Your task to perform on an android device: Go to ESPN.com Image 0: 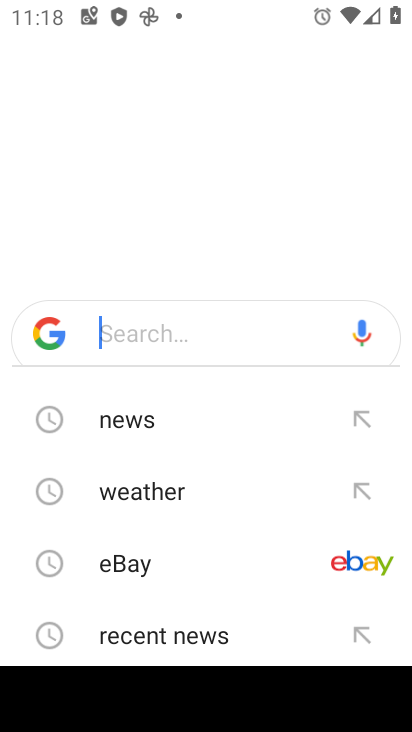
Step 0: press home button
Your task to perform on an android device: Go to ESPN.com Image 1: 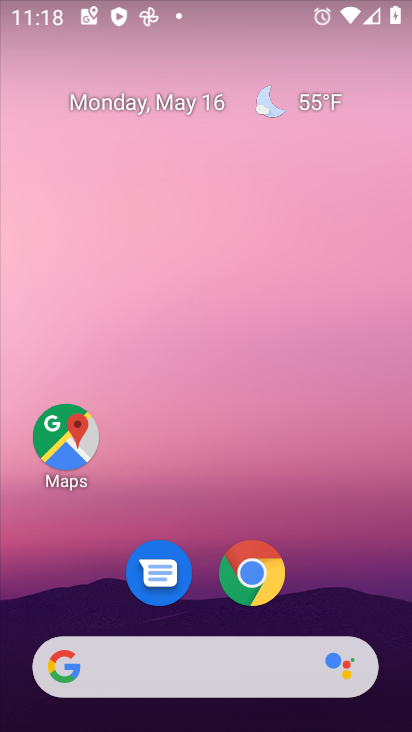
Step 1: click (239, 580)
Your task to perform on an android device: Go to ESPN.com Image 2: 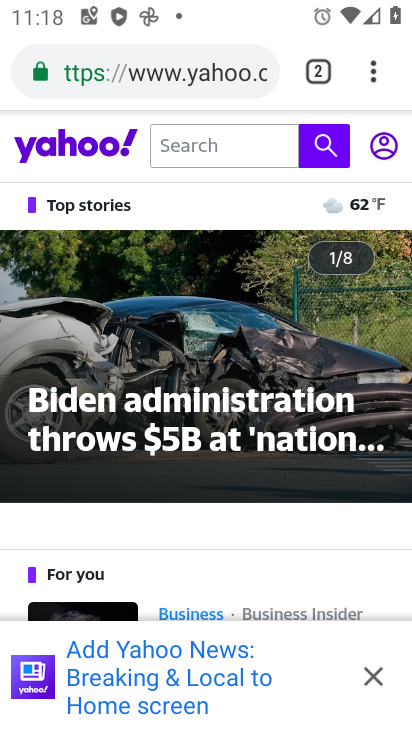
Step 2: click (329, 79)
Your task to perform on an android device: Go to ESPN.com Image 3: 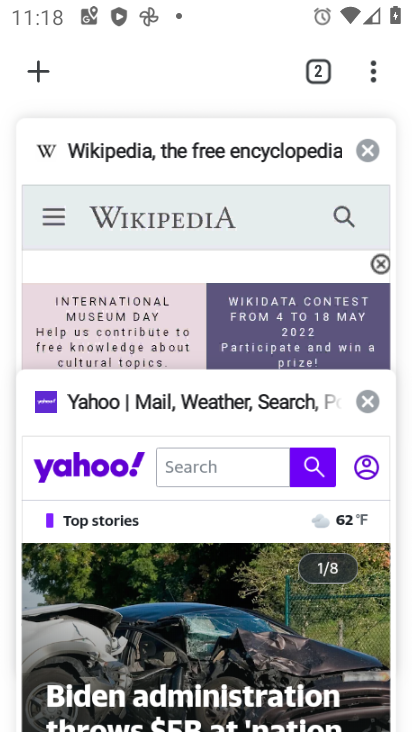
Step 3: click (369, 153)
Your task to perform on an android device: Go to ESPN.com Image 4: 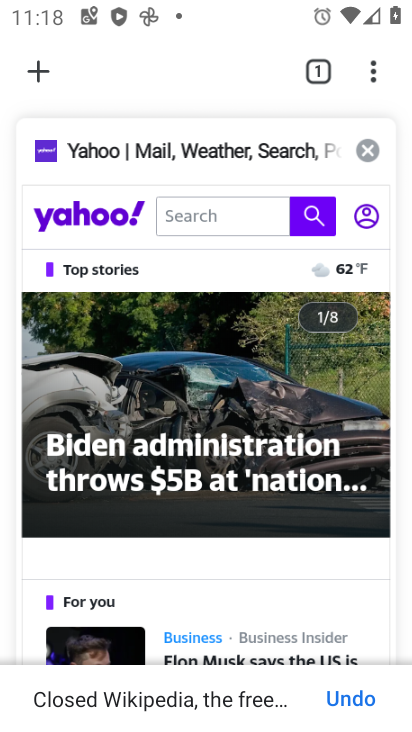
Step 4: click (369, 153)
Your task to perform on an android device: Go to ESPN.com Image 5: 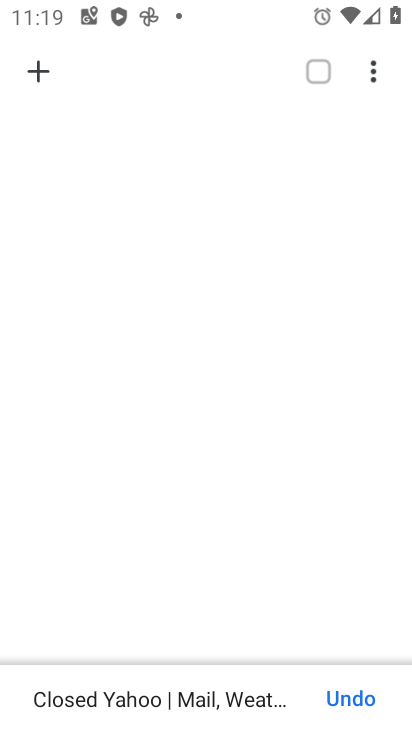
Step 5: click (46, 78)
Your task to perform on an android device: Go to ESPN.com Image 6: 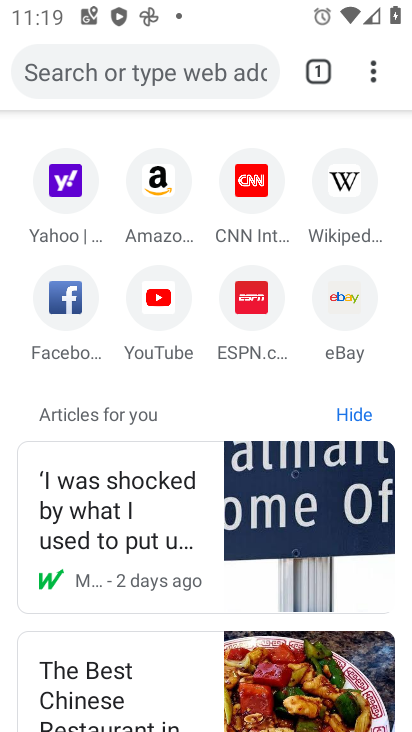
Step 6: click (271, 296)
Your task to perform on an android device: Go to ESPN.com Image 7: 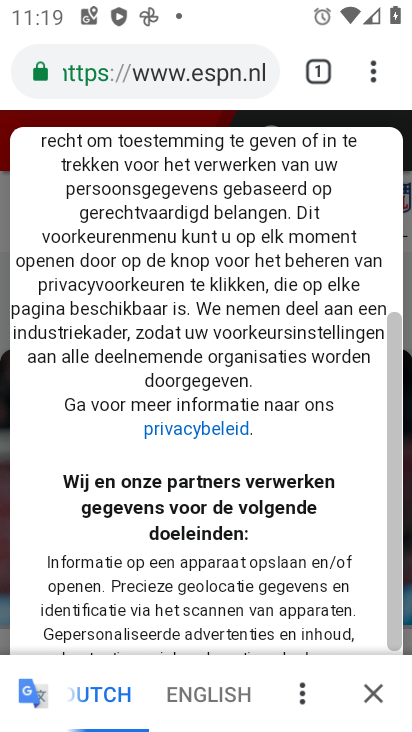
Step 7: task complete